Your task to perform on an android device: Is it going to rain tomorrow? Image 0: 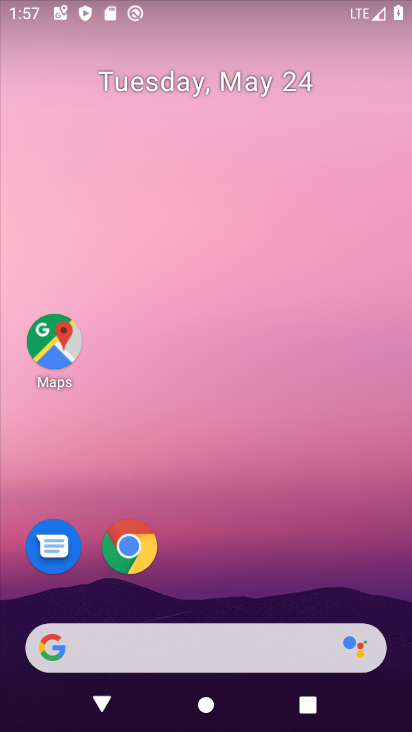
Step 0: drag from (200, 599) to (219, 167)
Your task to perform on an android device: Is it going to rain tomorrow? Image 1: 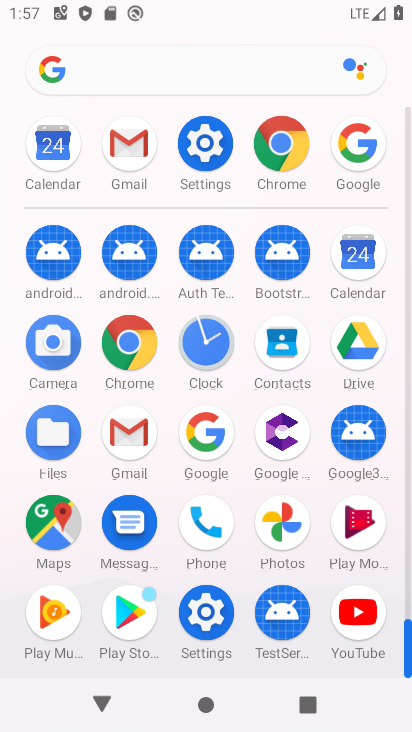
Step 1: click (197, 67)
Your task to perform on an android device: Is it going to rain tomorrow? Image 2: 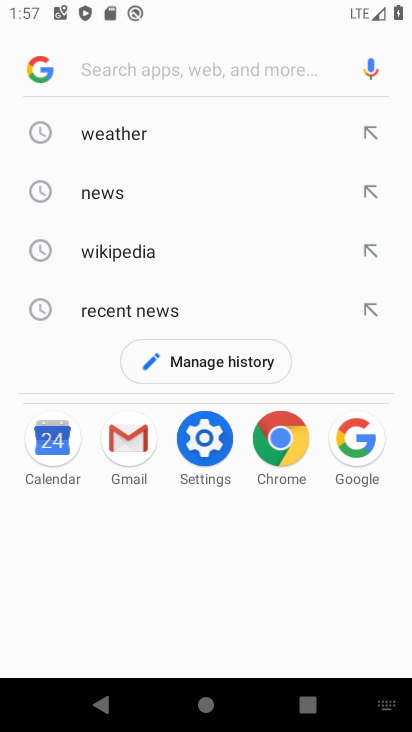
Step 2: type "rain tomorrow?"
Your task to perform on an android device: Is it going to rain tomorrow? Image 3: 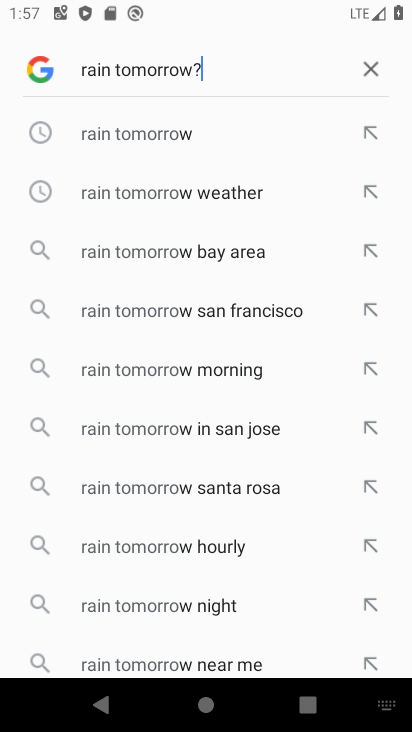
Step 3: type ""
Your task to perform on an android device: Is it going to rain tomorrow? Image 4: 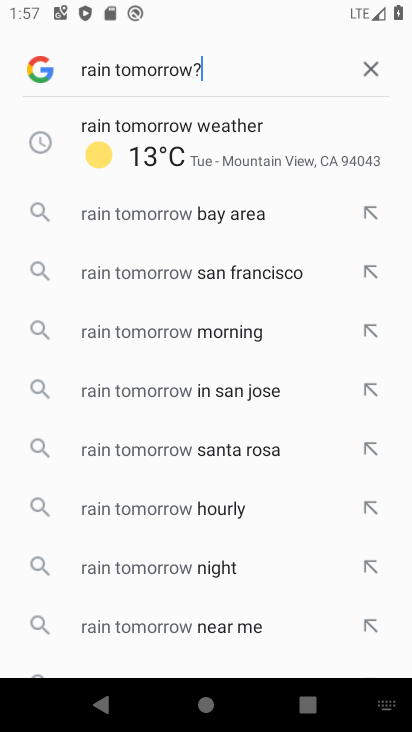
Step 4: click (148, 124)
Your task to perform on an android device: Is it going to rain tomorrow? Image 5: 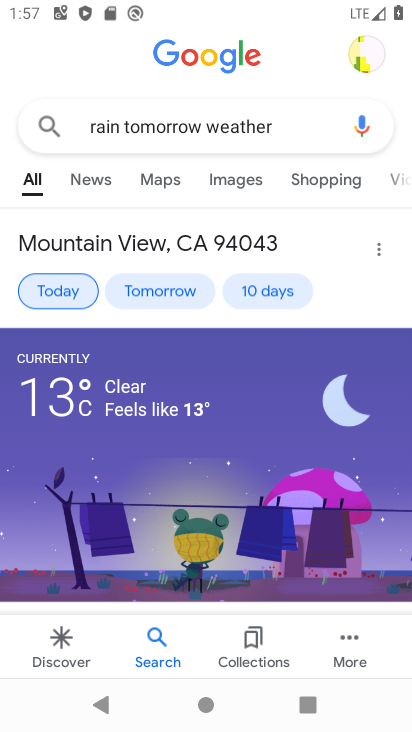
Step 5: task complete